Your task to perform on an android device: Search for Italian restaurants on Maps Image 0: 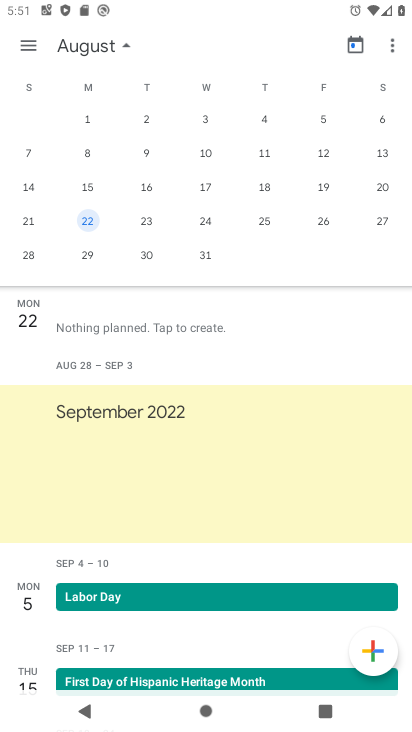
Step 0: press home button
Your task to perform on an android device: Search for Italian restaurants on Maps Image 1: 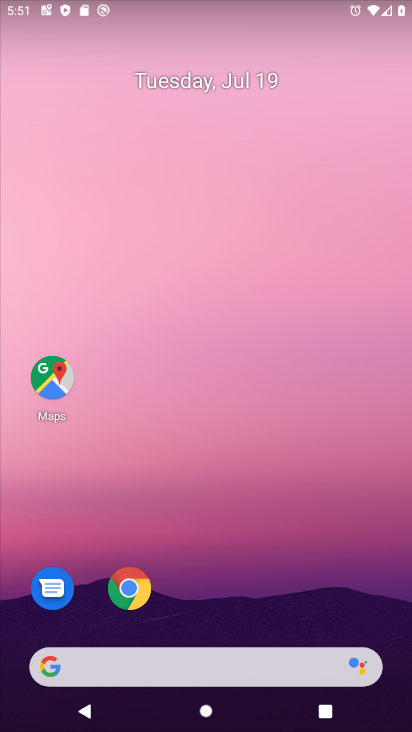
Step 1: click (65, 375)
Your task to perform on an android device: Search for Italian restaurants on Maps Image 2: 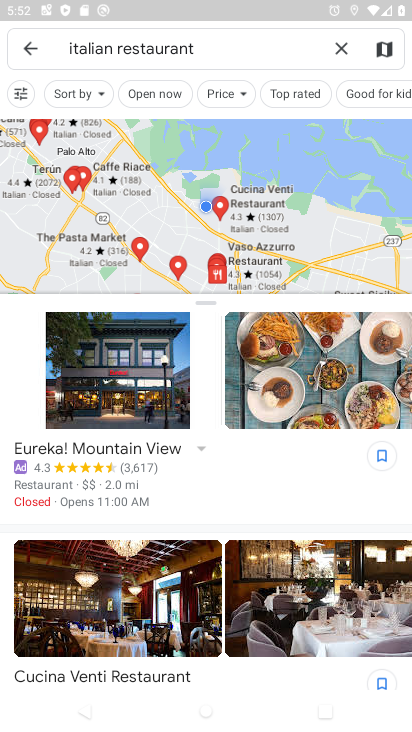
Step 2: task complete